Your task to perform on an android device: Clear the cart on amazon.com. Add "acer predator" to the cart on amazon.com Image 0: 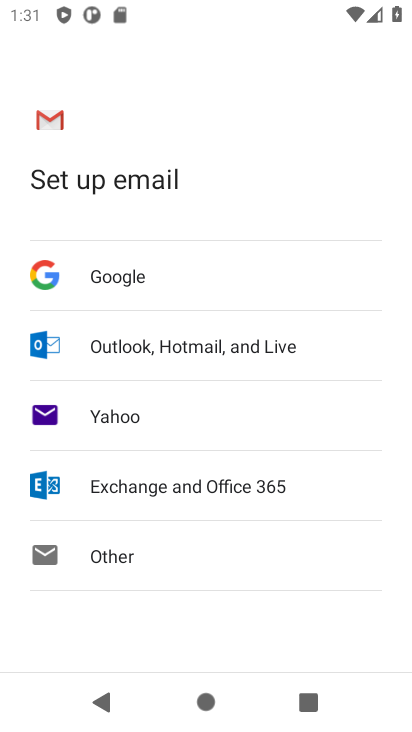
Step 0: press home button
Your task to perform on an android device: Clear the cart on amazon.com. Add "acer predator" to the cart on amazon.com Image 1: 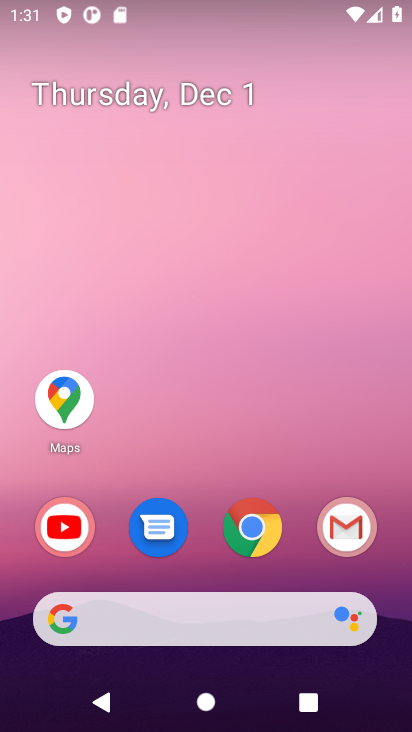
Step 1: click (251, 525)
Your task to perform on an android device: Clear the cart on amazon.com. Add "acer predator" to the cart on amazon.com Image 2: 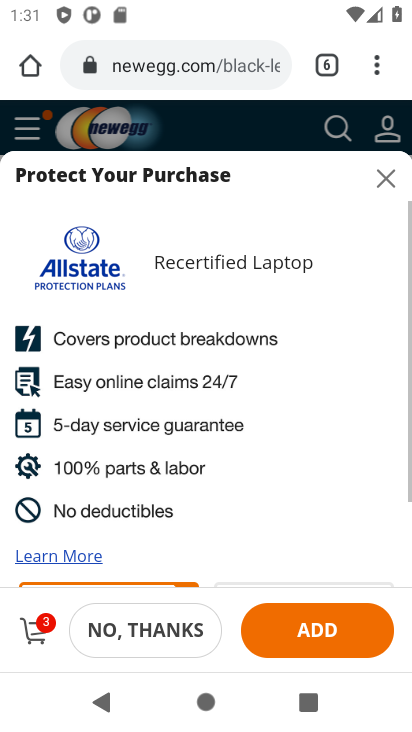
Step 2: click (173, 74)
Your task to perform on an android device: Clear the cart on amazon.com. Add "acer predator" to the cart on amazon.com Image 3: 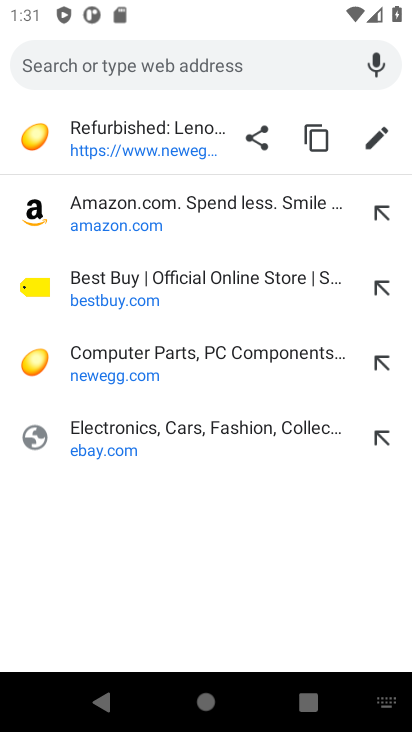
Step 3: click (114, 213)
Your task to perform on an android device: Clear the cart on amazon.com. Add "acer predator" to the cart on amazon.com Image 4: 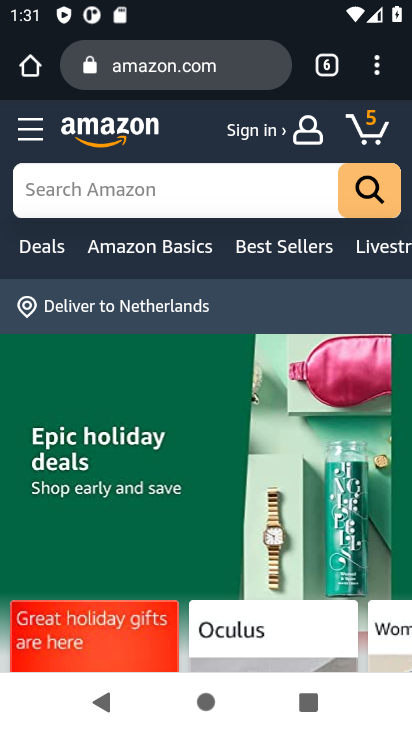
Step 4: click (364, 126)
Your task to perform on an android device: Clear the cart on amazon.com. Add "acer predator" to the cart on amazon.com Image 5: 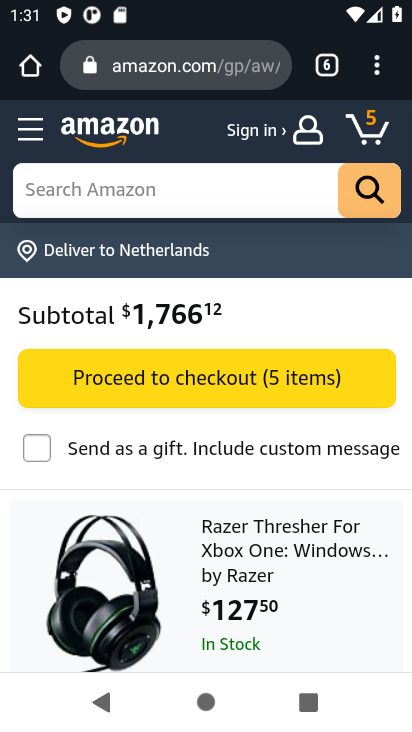
Step 5: drag from (281, 445) to (275, 190)
Your task to perform on an android device: Clear the cart on amazon.com. Add "acer predator" to the cart on amazon.com Image 6: 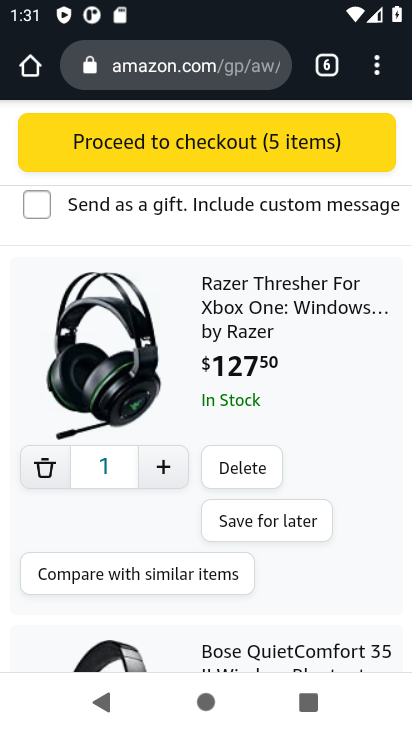
Step 6: click (241, 464)
Your task to perform on an android device: Clear the cart on amazon.com. Add "acer predator" to the cart on amazon.com Image 7: 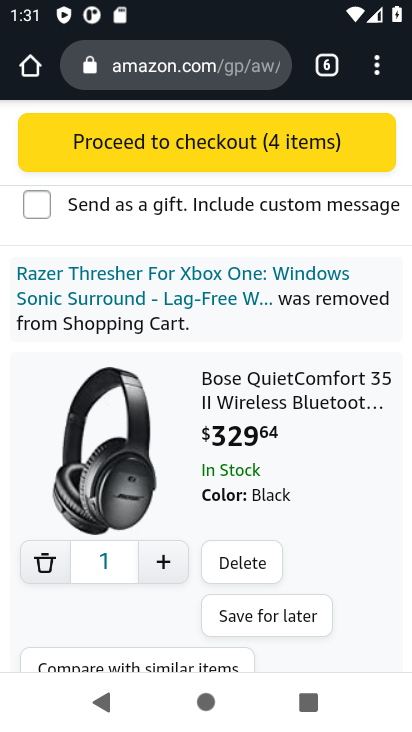
Step 7: click (248, 563)
Your task to perform on an android device: Clear the cart on amazon.com. Add "acer predator" to the cart on amazon.com Image 8: 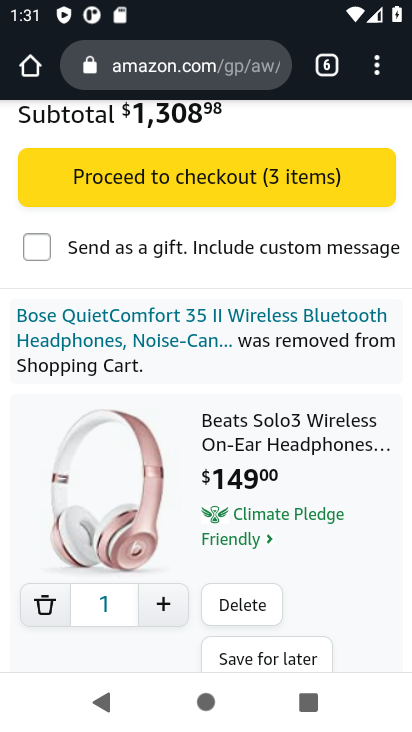
Step 8: click (245, 593)
Your task to perform on an android device: Clear the cart on amazon.com. Add "acer predator" to the cart on amazon.com Image 9: 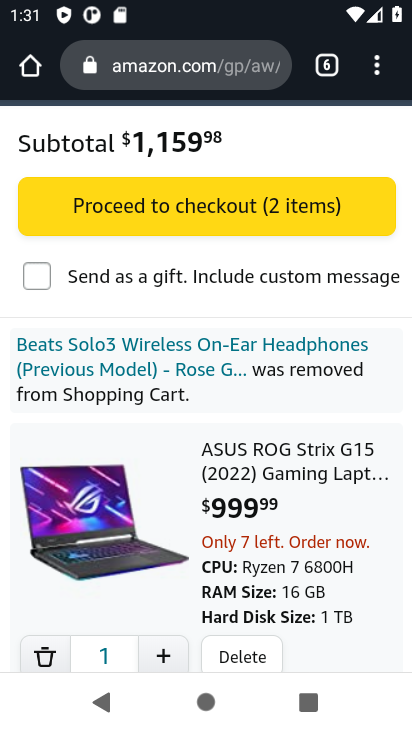
Step 9: drag from (240, 577) to (235, 341)
Your task to perform on an android device: Clear the cart on amazon.com. Add "acer predator" to the cart on amazon.com Image 10: 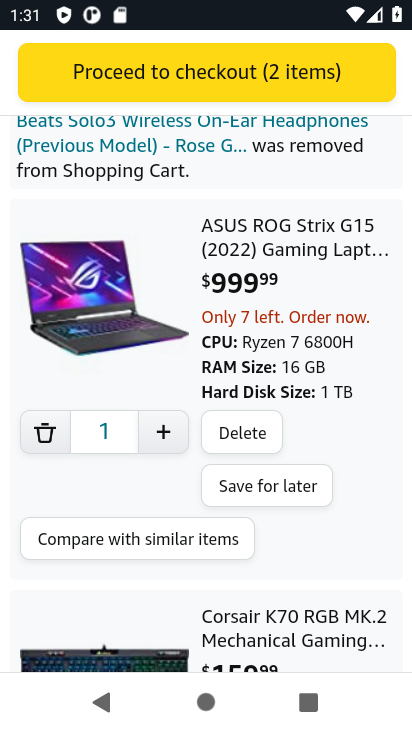
Step 10: click (239, 423)
Your task to perform on an android device: Clear the cart on amazon.com. Add "acer predator" to the cart on amazon.com Image 11: 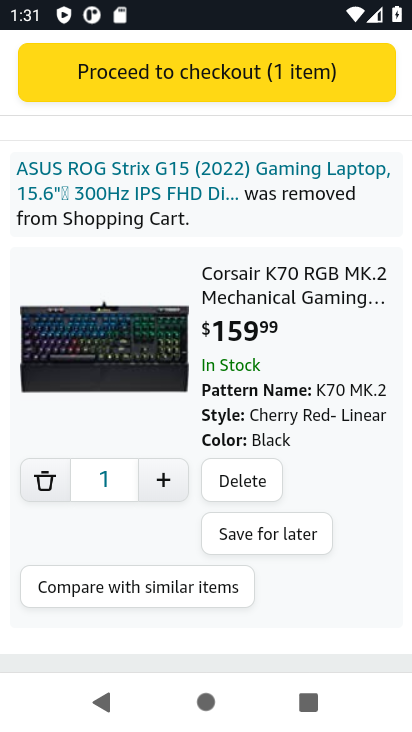
Step 11: click (229, 473)
Your task to perform on an android device: Clear the cart on amazon.com. Add "acer predator" to the cart on amazon.com Image 12: 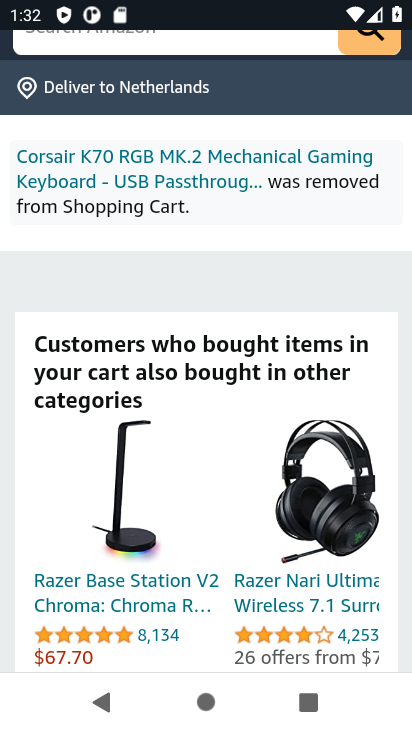
Step 12: drag from (229, 473) to (235, 285)
Your task to perform on an android device: Clear the cart on amazon.com. Add "acer predator" to the cart on amazon.com Image 13: 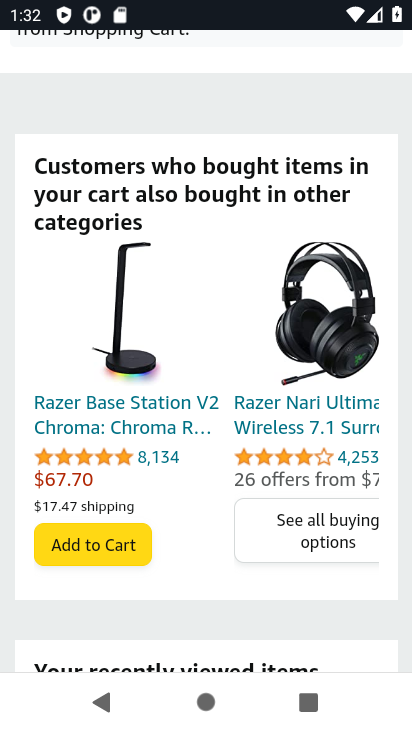
Step 13: drag from (235, 284) to (202, 553)
Your task to perform on an android device: Clear the cart on amazon.com. Add "acer predator" to the cart on amazon.com Image 14: 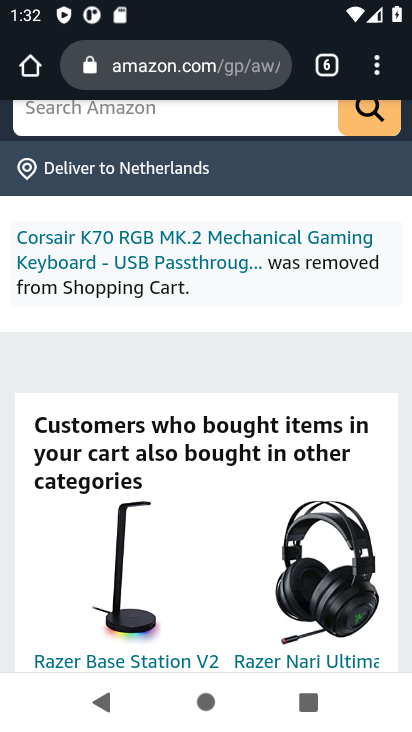
Step 14: click (114, 117)
Your task to perform on an android device: Clear the cart on amazon.com. Add "acer predator" to the cart on amazon.com Image 15: 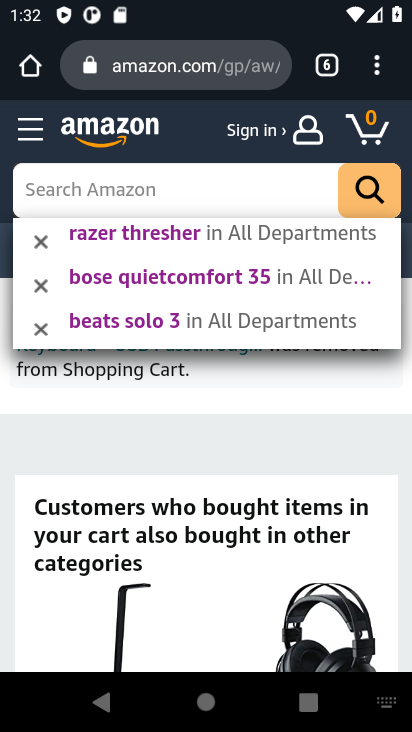
Step 15: type "acer predator"
Your task to perform on an android device: Clear the cart on amazon.com. Add "acer predator" to the cart on amazon.com Image 16: 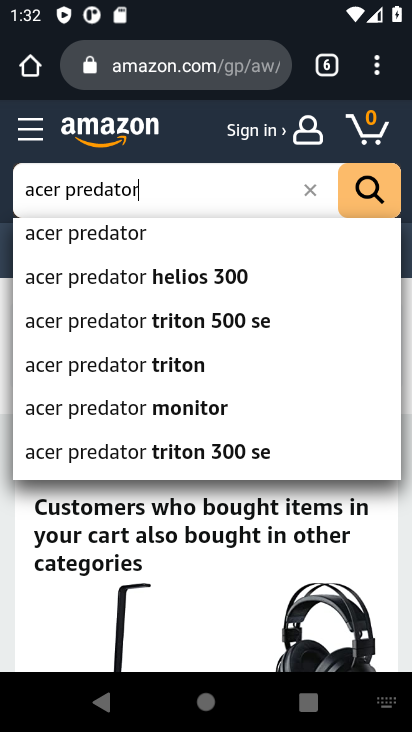
Step 16: click (109, 236)
Your task to perform on an android device: Clear the cart on amazon.com. Add "acer predator" to the cart on amazon.com Image 17: 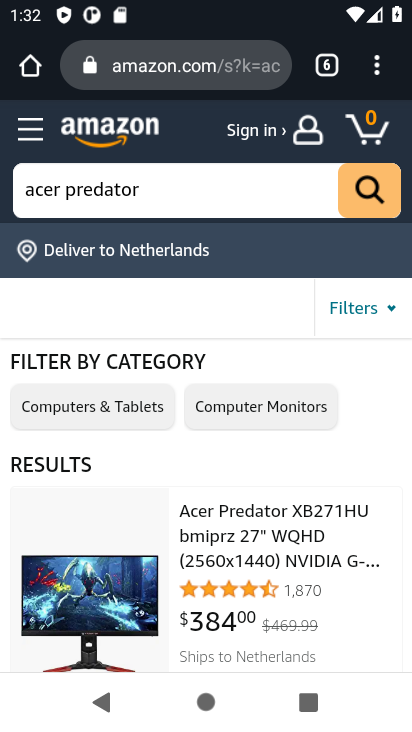
Step 17: drag from (177, 432) to (179, 293)
Your task to perform on an android device: Clear the cart on amazon.com. Add "acer predator" to the cart on amazon.com Image 18: 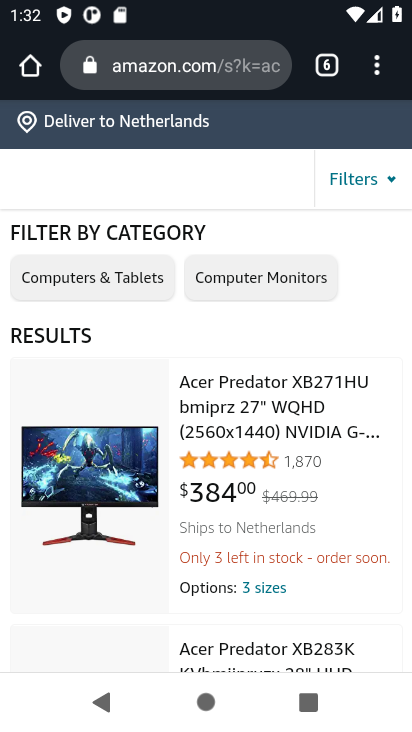
Step 18: click (269, 436)
Your task to perform on an android device: Clear the cart on amazon.com. Add "acer predator" to the cart on amazon.com Image 19: 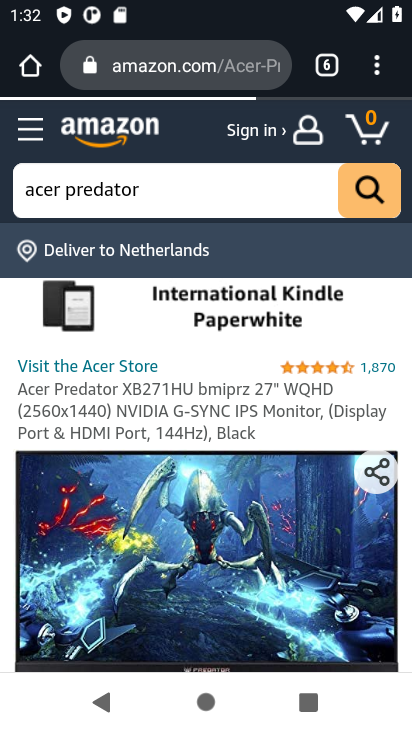
Step 19: drag from (260, 540) to (276, 230)
Your task to perform on an android device: Clear the cart on amazon.com. Add "acer predator" to the cart on amazon.com Image 20: 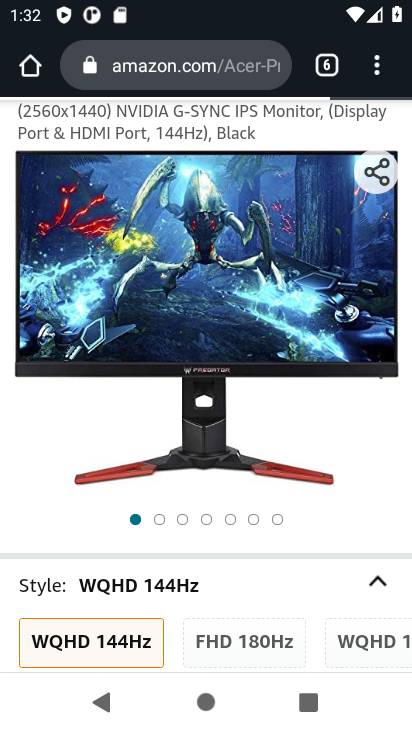
Step 20: drag from (206, 552) to (225, 202)
Your task to perform on an android device: Clear the cart on amazon.com. Add "acer predator" to the cart on amazon.com Image 21: 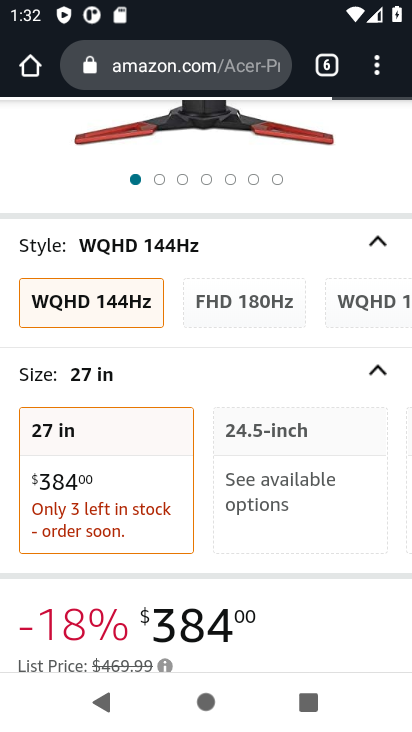
Step 21: drag from (212, 423) to (232, 104)
Your task to perform on an android device: Clear the cart on amazon.com. Add "acer predator" to the cart on amazon.com Image 22: 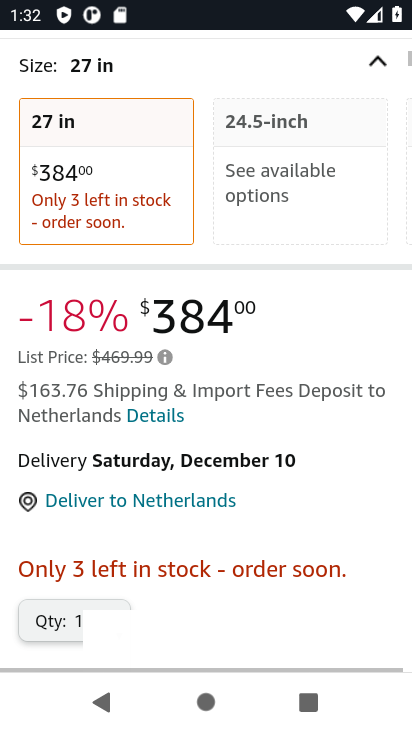
Step 22: drag from (216, 327) to (228, 158)
Your task to perform on an android device: Clear the cart on amazon.com. Add "acer predator" to the cart on amazon.com Image 23: 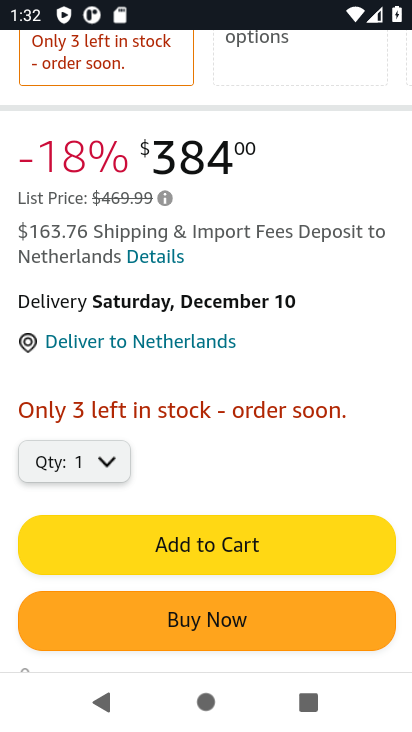
Step 23: click (188, 541)
Your task to perform on an android device: Clear the cart on amazon.com. Add "acer predator" to the cart on amazon.com Image 24: 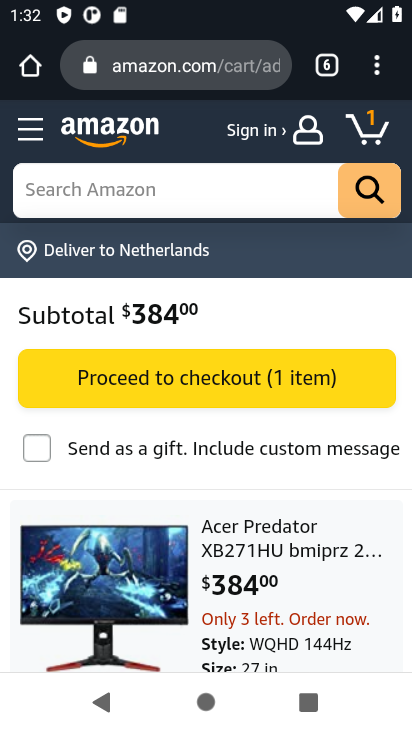
Step 24: task complete